Your task to perform on an android device: Open calendar and show me the first week of next month Image 0: 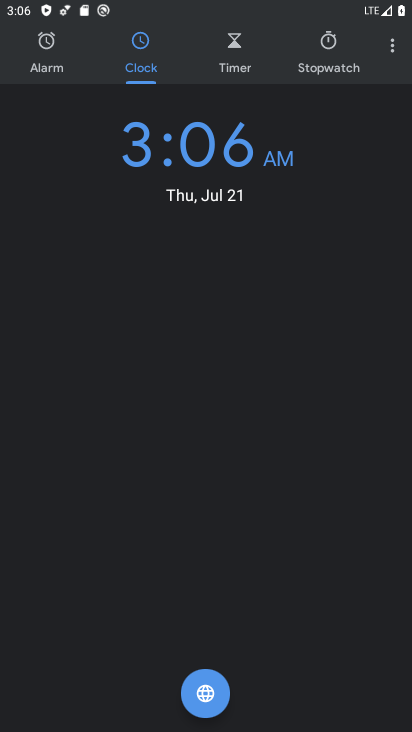
Step 0: press back button
Your task to perform on an android device: Open calendar and show me the first week of next month Image 1: 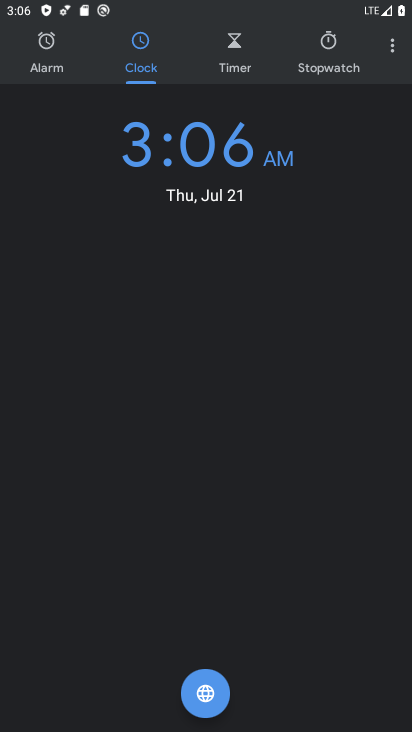
Step 1: press back button
Your task to perform on an android device: Open calendar and show me the first week of next month Image 2: 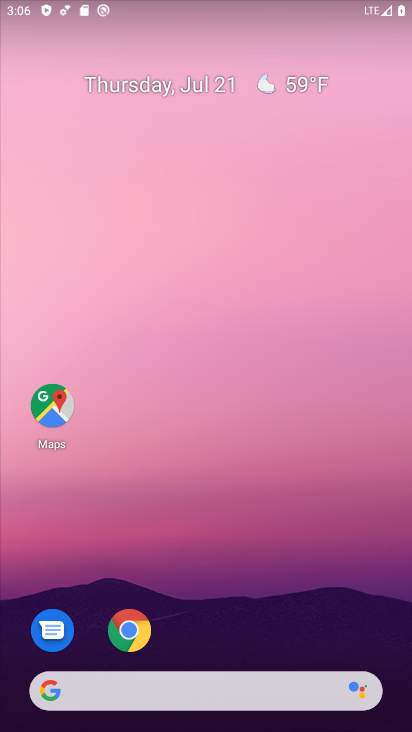
Step 2: drag from (240, 550) to (200, 38)
Your task to perform on an android device: Open calendar and show me the first week of next month Image 3: 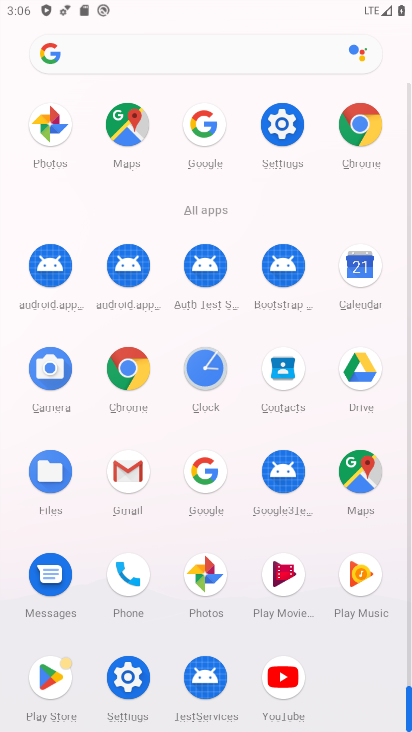
Step 3: click (346, 269)
Your task to perform on an android device: Open calendar and show me the first week of next month Image 4: 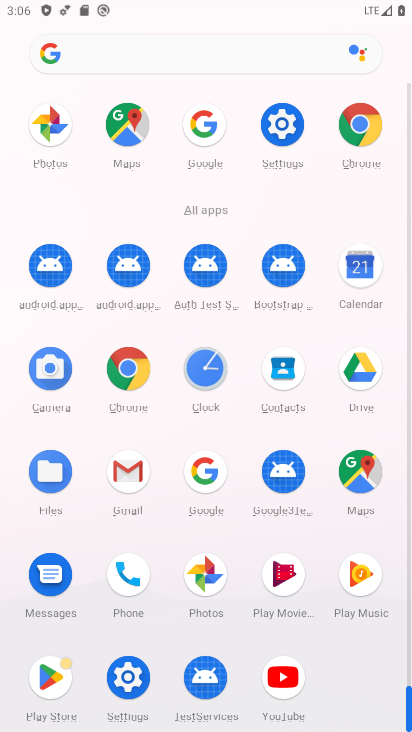
Step 4: click (350, 268)
Your task to perform on an android device: Open calendar and show me the first week of next month Image 5: 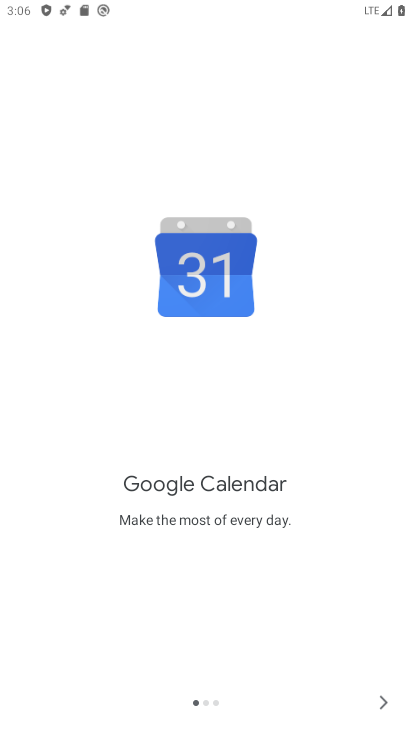
Step 5: click (378, 696)
Your task to perform on an android device: Open calendar and show me the first week of next month Image 6: 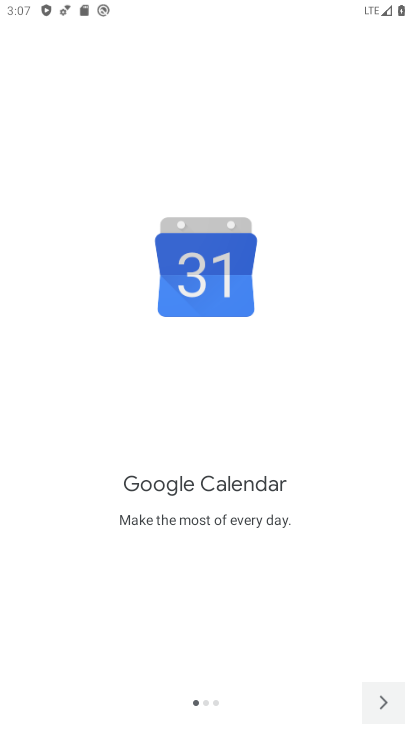
Step 6: click (379, 697)
Your task to perform on an android device: Open calendar and show me the first week of next month Image 7: 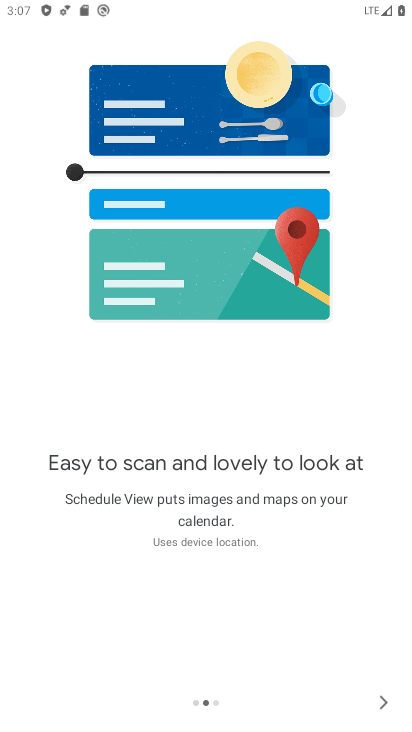
Step 7: click (379, 697)
Your task to perform on an android device: Open calendar and show me the first week of next month Image 8: 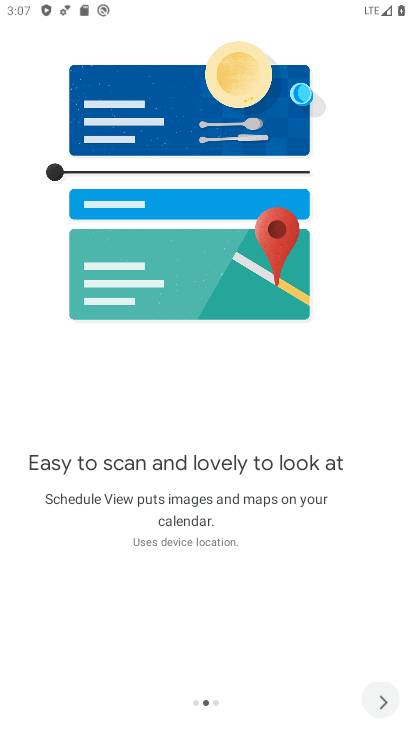
Step 8: click (381, 697)
Your task to perform on an android device: Open calendar and show me the first week of next month Image 9: 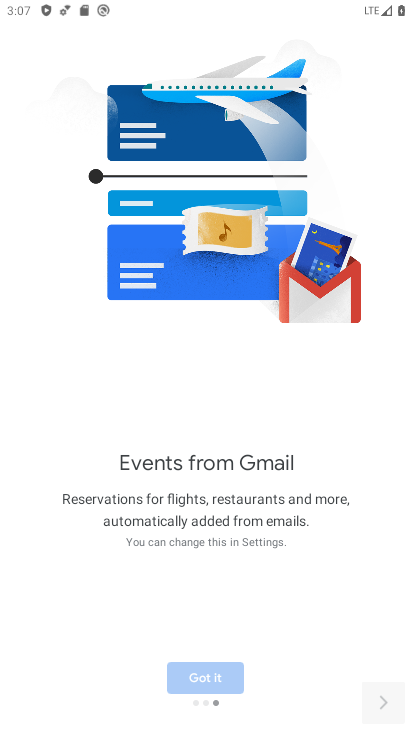
Step 9: click (381, 697)
Your task to perform on an android device: Open calendar and show me the first week of next month Image 10: 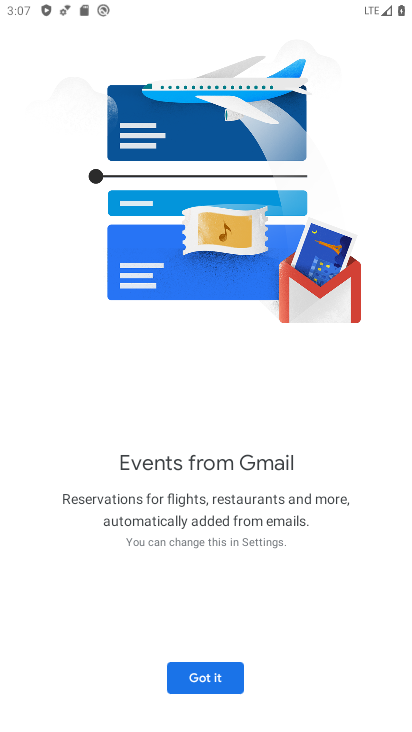
Step 10: click (381, 697)
Your task to perform on an android device: Open calendar and show me the first week of next month Image 11: 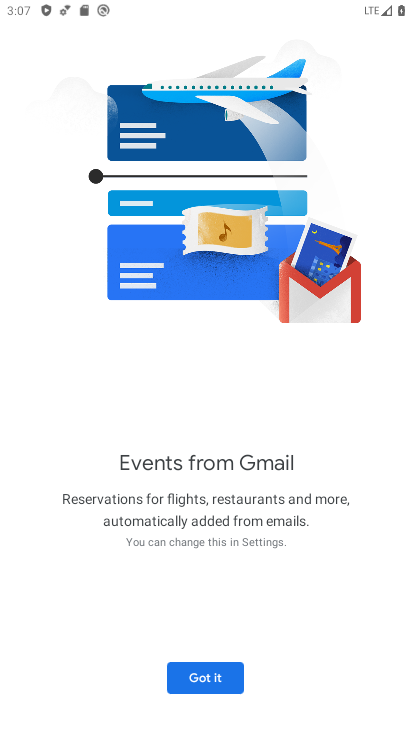
Step 11: click (221, 664)
Your task to perform on an android device: Open calendar and show me the first week of next month Image 12: 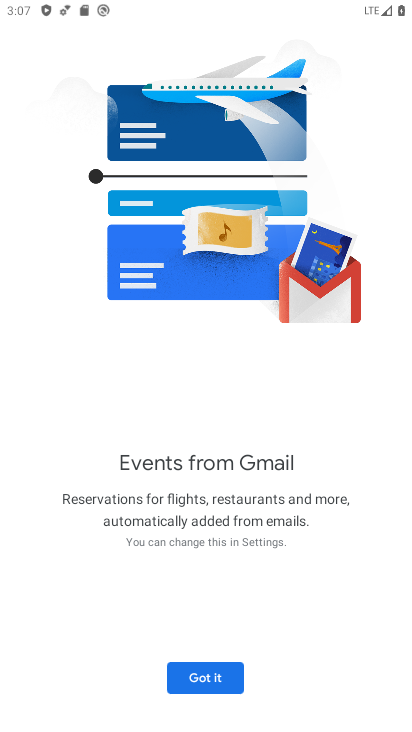
Step 12: click (225, 664)
Your task to perform on an android device: Open calendar and show me the first week of next month Image 13: 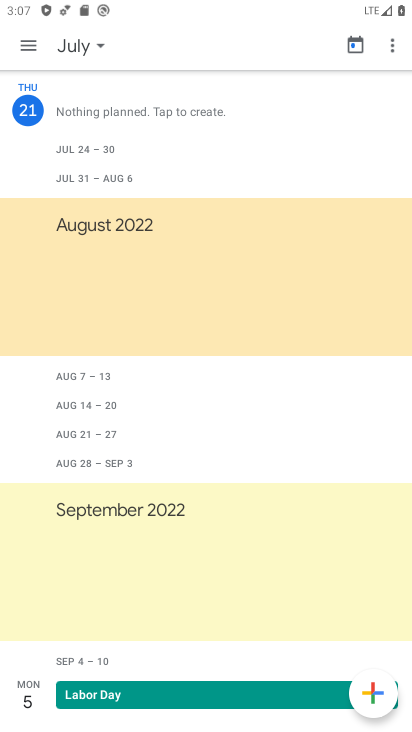
Step 13: click (100, 49)
Your task to perform on an android device: Open calendar and show me the first week of next month Image 14: 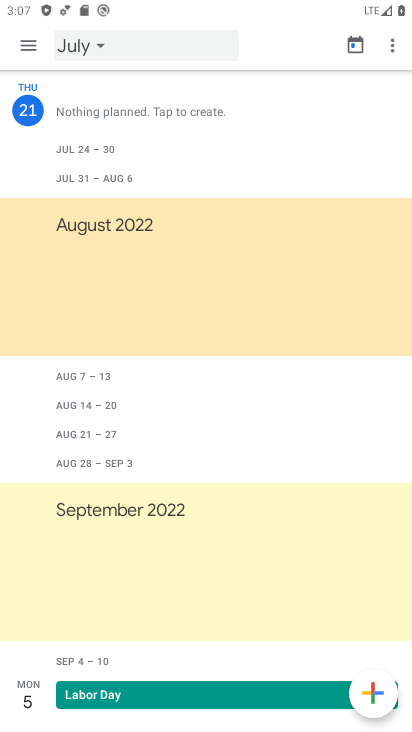
Step 14: click (100, 49)
Your task to perform on an android device: Open calendar and show me the first week of next month Image 15: 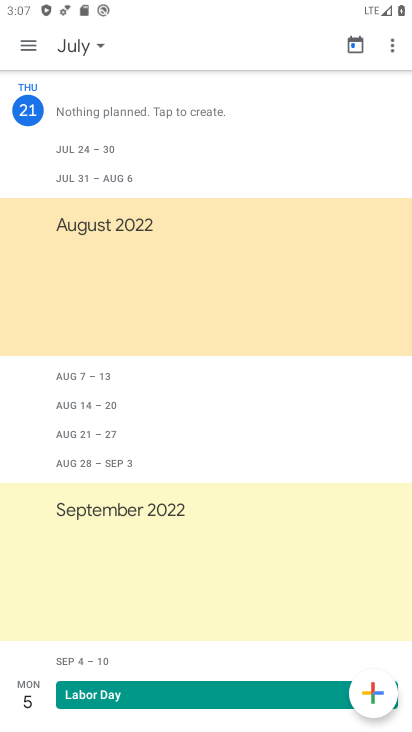
Step 15: click (103, 40)
Your task to perform on an android device: Open calendar and show me the first week of next month Image 16: 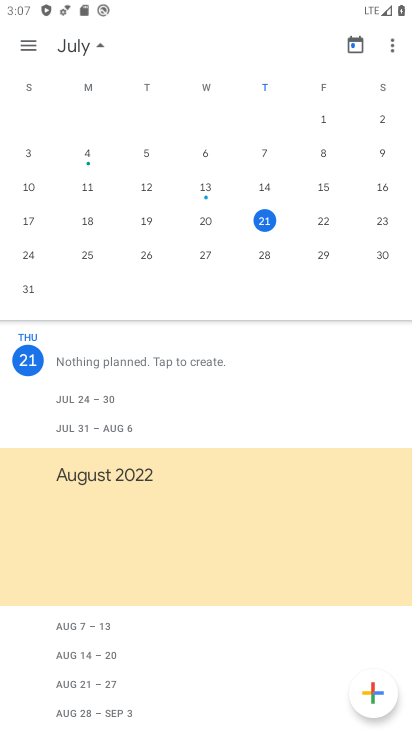
Step 16: task complete